Your task to perform on an android device: Search for sushi restaurants on Maps Image 0: 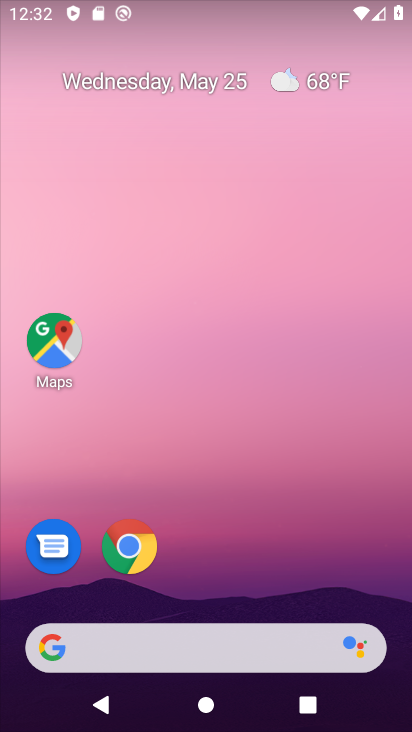
Step 0: click (47, 344)
Your task to perform on an android device: Search for sushi restaurants on Maps Image 1: 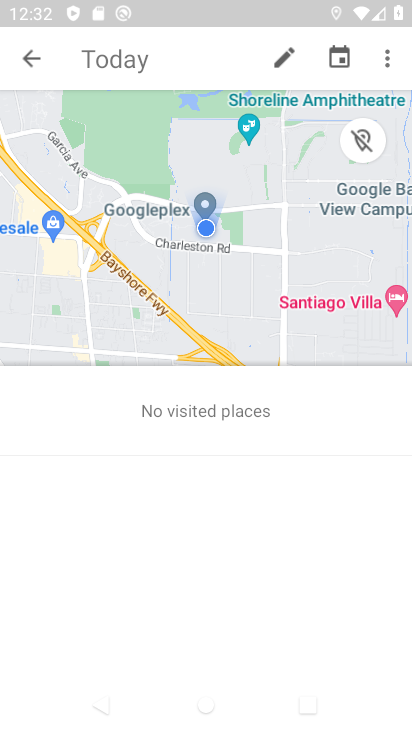
Step 1: click (27, 55)
Your task to perform on an android device: Search for sushi restaurants on Maps Image 2: 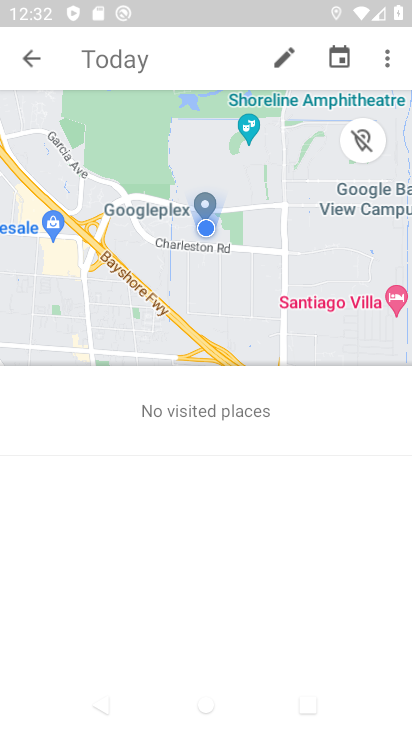
Step 2: click (27, 55)
Your task to perform on an android device: Search for sushi restaurants on Maps Image 3: 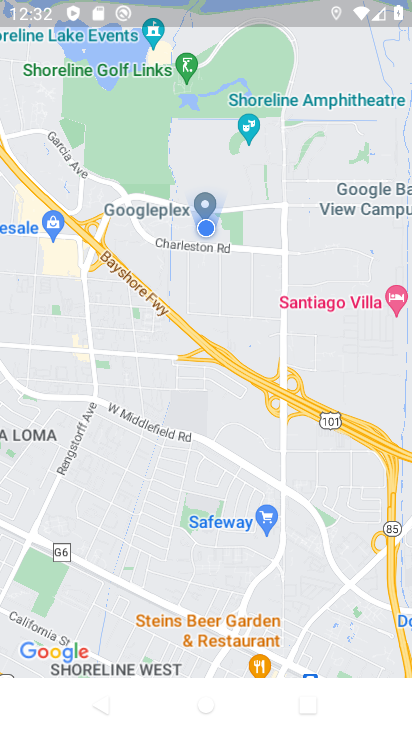
Step 3: drag from (165, 176) to (161, 372)
Your task to perform on an android device: Search for sushi restaurants on Maps Image 4: 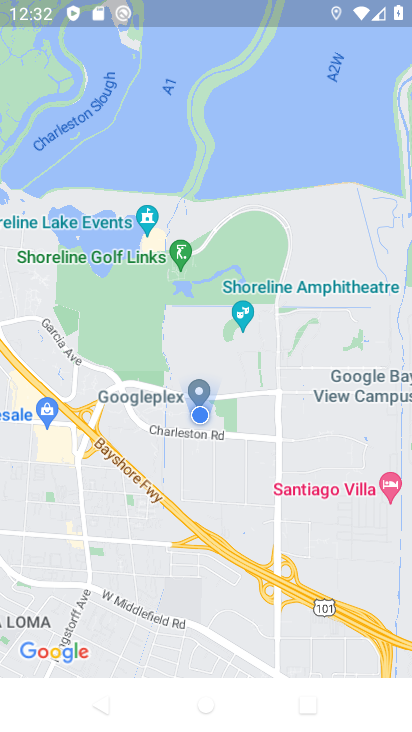
Step 4: click (155, 240)
Your task to perform on an android device: Search for sushi restaurants on Maps Image 5: 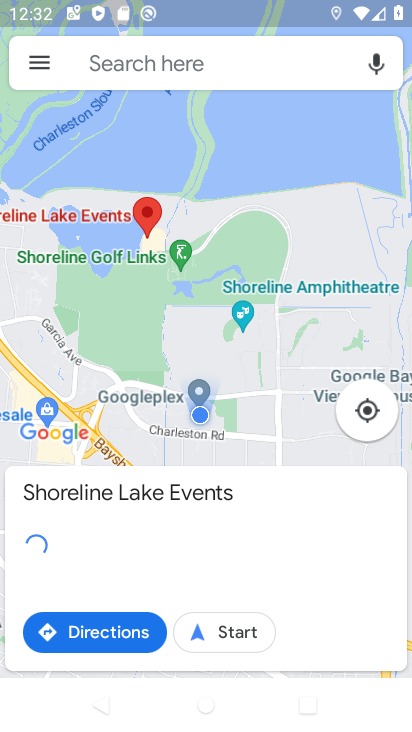
Step 5: click (215, 64)
Your task to perform on an android device: Search for sushi restaurants on Maps Image 6: 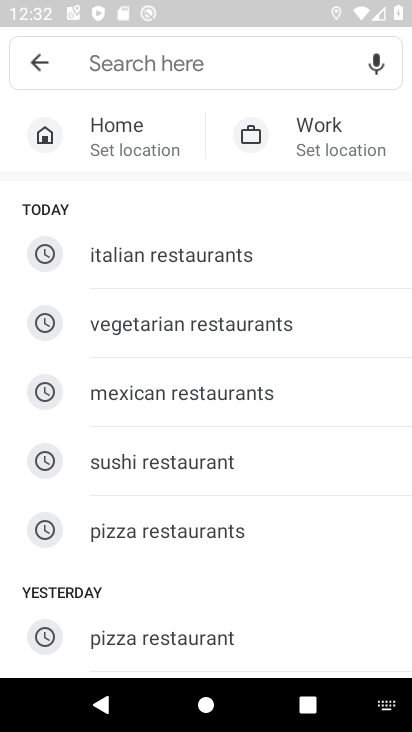
Step 6: click (176, 449)
Your task to perform on an android device: Search for sushi restaurants on Maps Image 7: 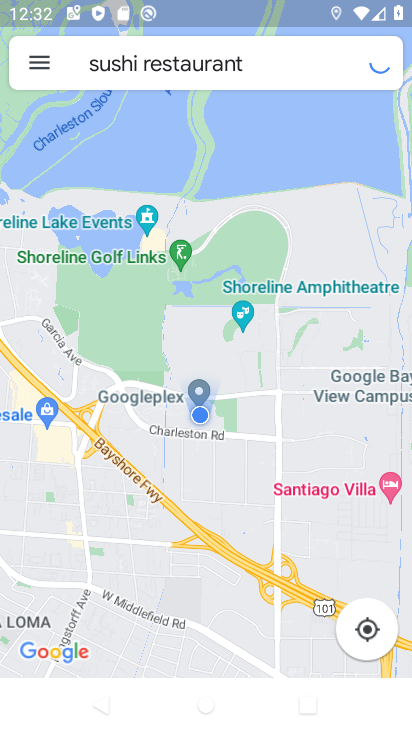
Step 7: task complete